Your task to perform on an android device: install app "Speedtest by Ookla" Image 0: 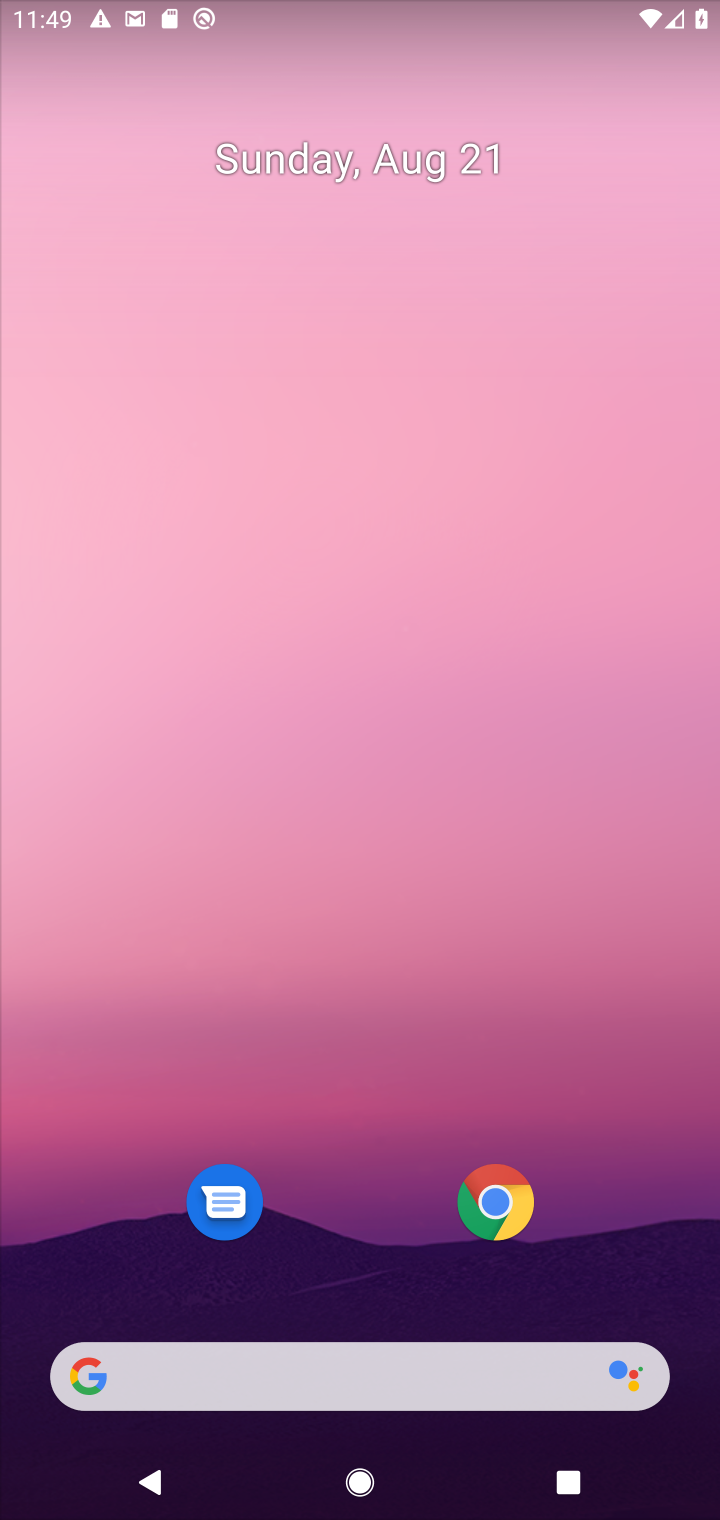
Step 0: drag from (356, 1300) to (339, 237)
Your task to perform on an android device: install app "Speedtest by Ookla" Image 1: 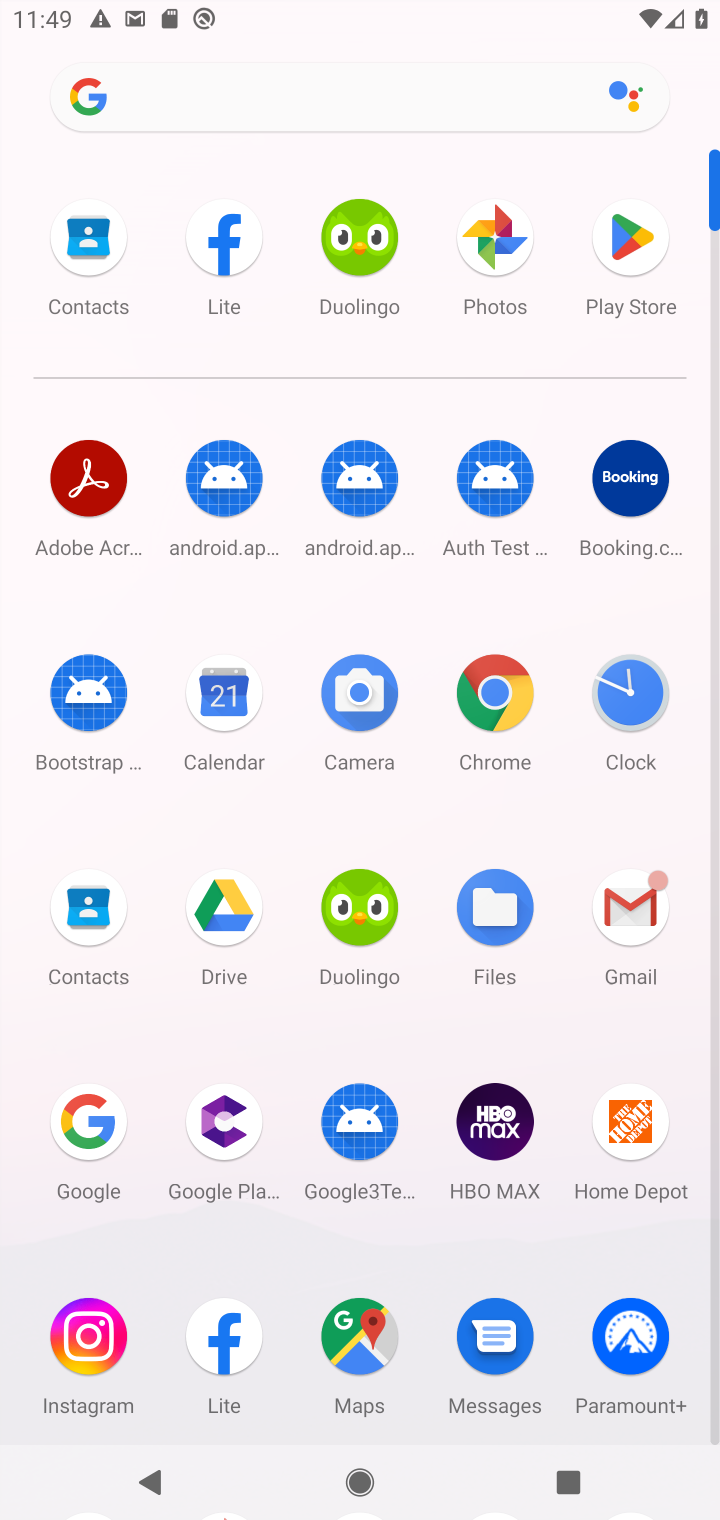
Step 1: click (626, 241)
Your task to perform on an android device: install app "Speedtest by Ookla" Image 2: 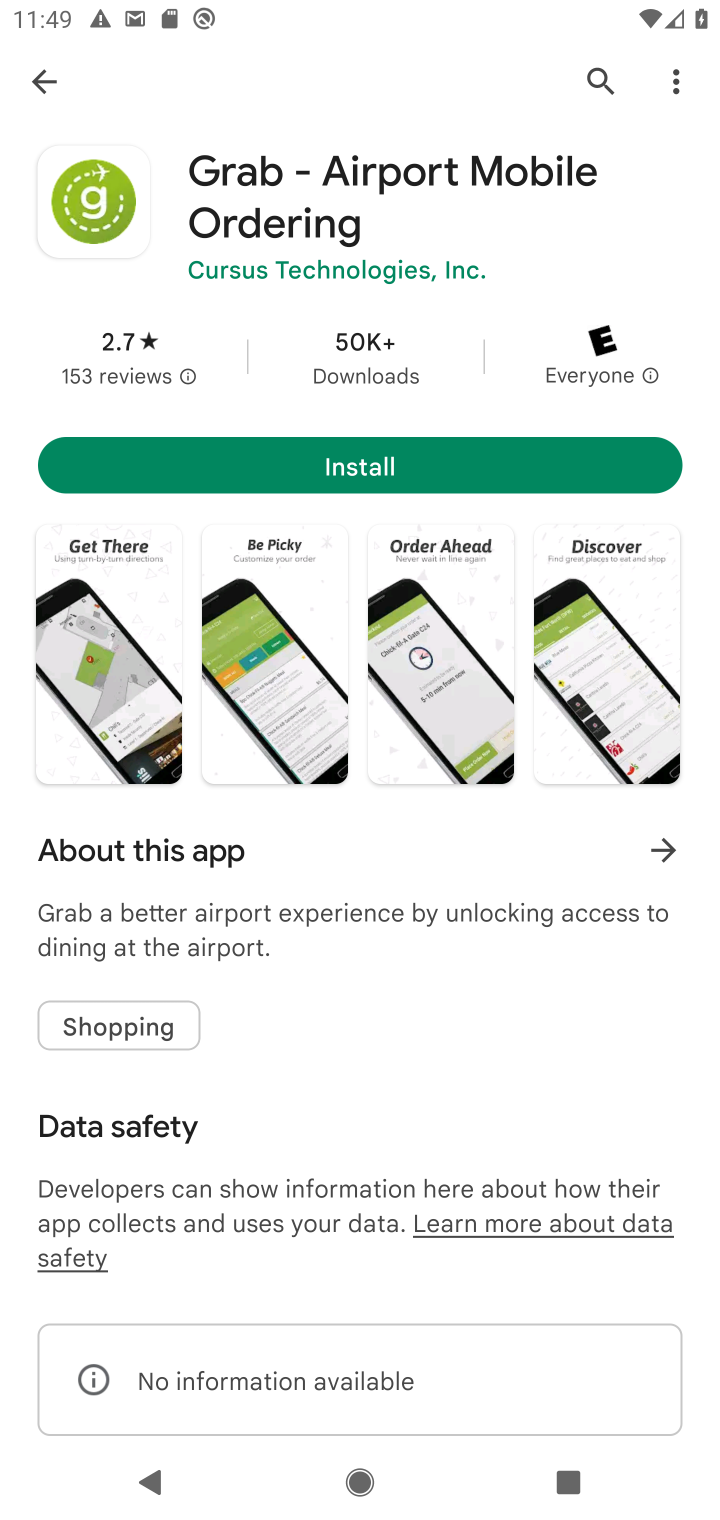
Step 2: click (595, 78)
Your task to perform on an android device: install app "Speedtest by Ookla" Image 3: 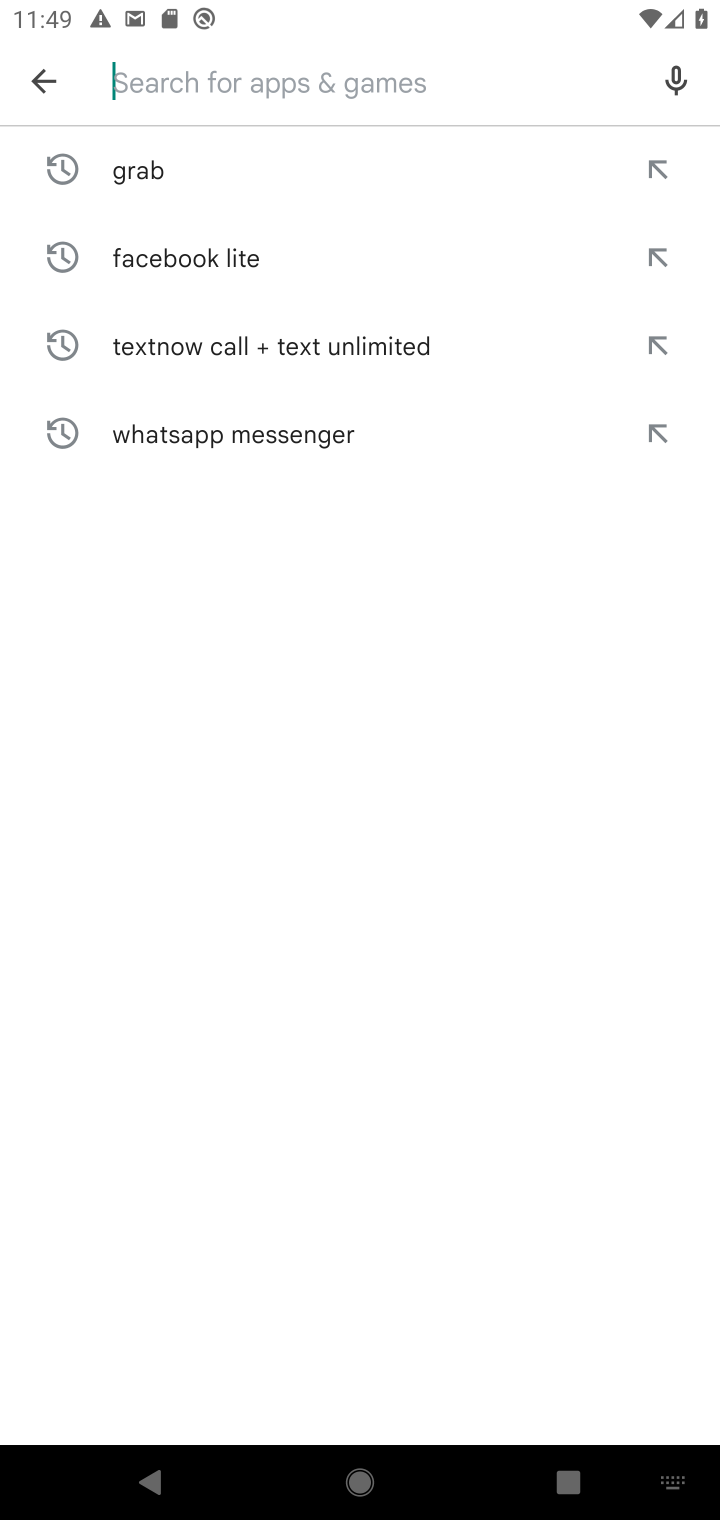
Step 3: type "Speedtest by Ookla"
Your task to perform on an android device: install app "Speedtest by Ookla" Image 4: 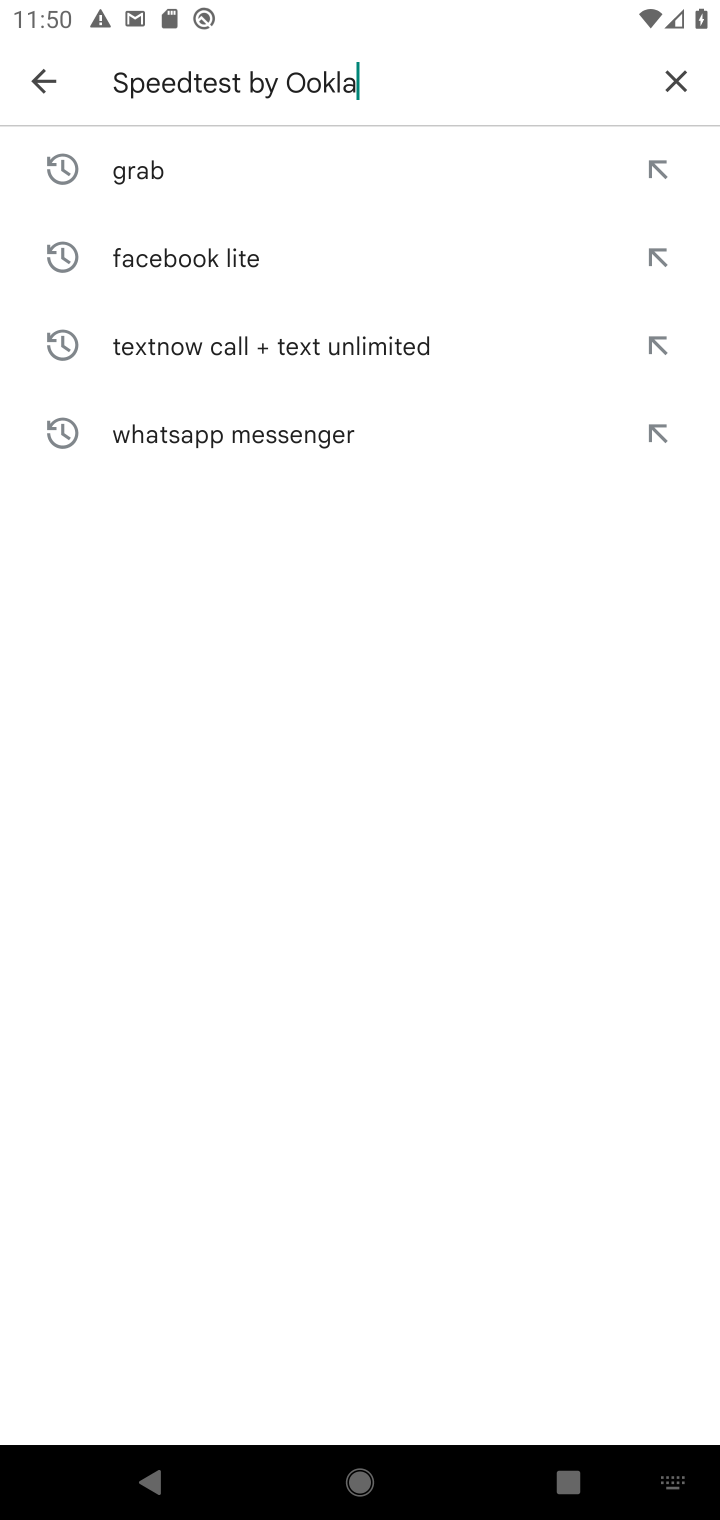
Step 4: type ""
Your task to perform on an android device: install app "Speedtest by Ookla" Image 5: 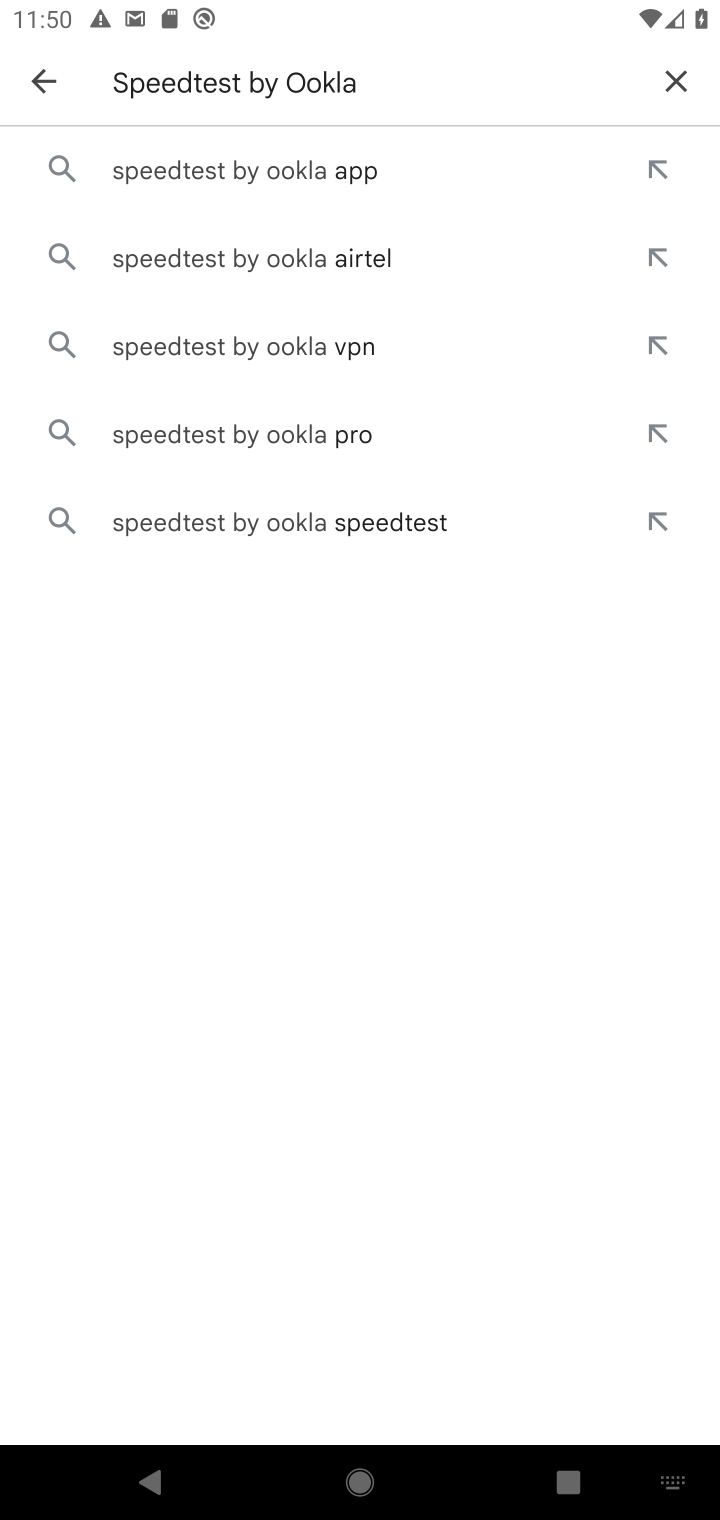
Step 5: click (295, 164)
Your task to perform on an android device: install app "Speedtest by Ookla" Image 6: 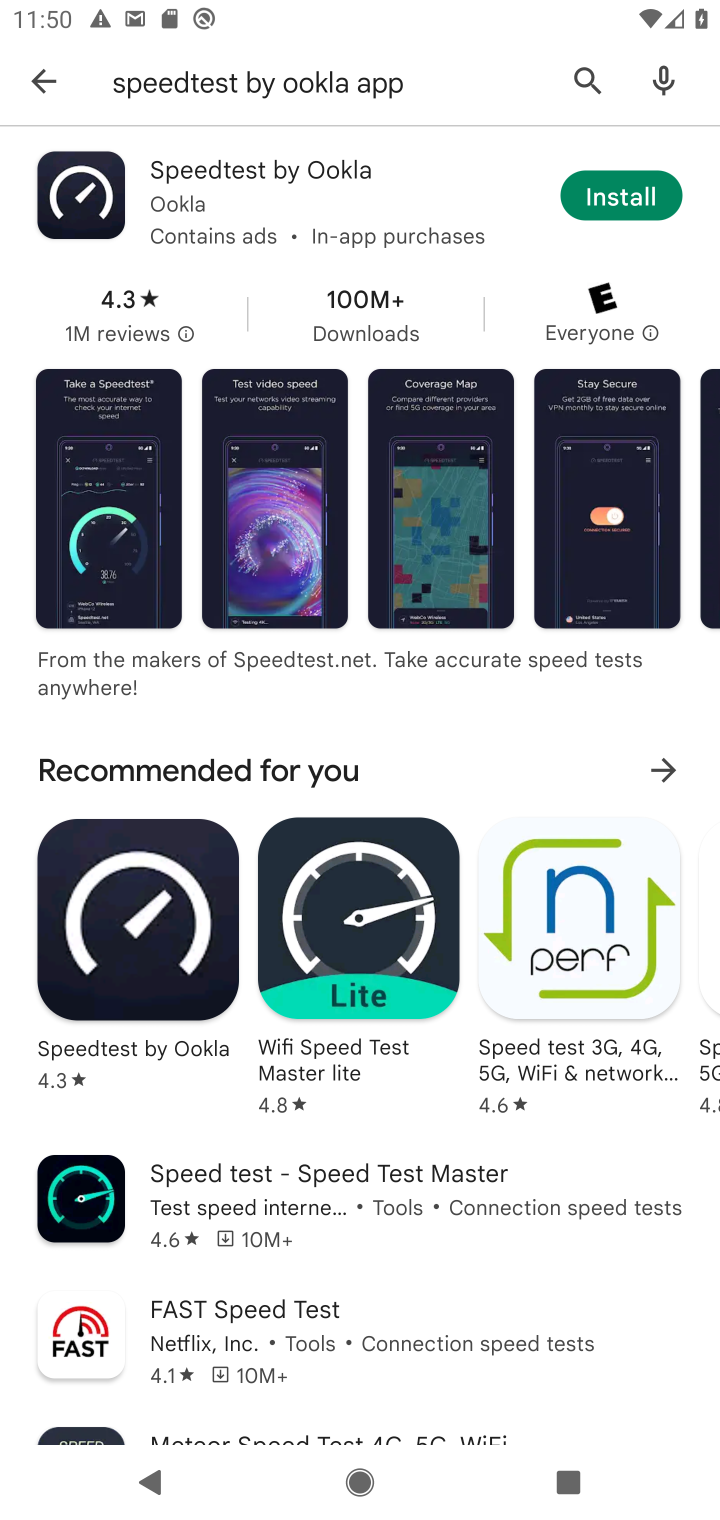
Step 6: click (621, 194)
Your task to perform on an android device: install app "Speedtest by Ookla" Image 7: 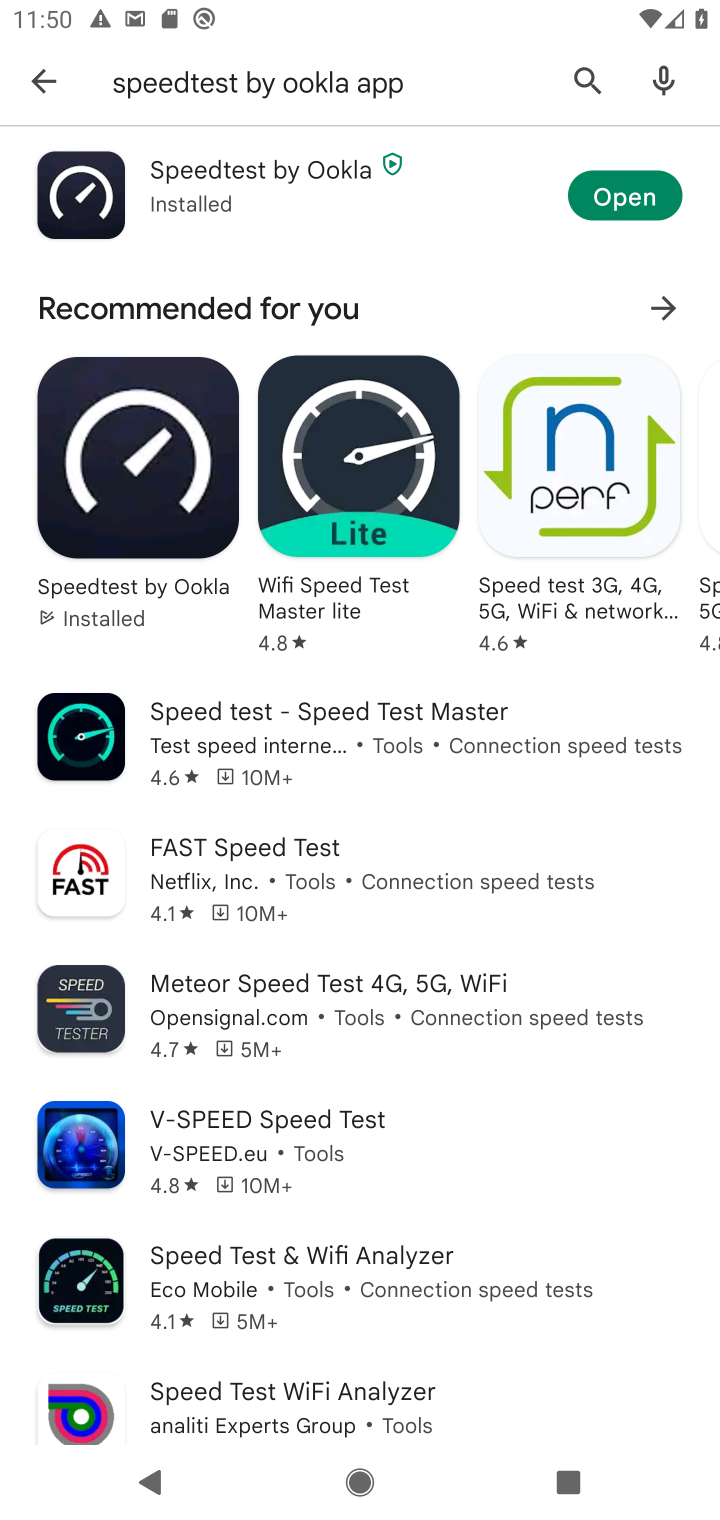
Step 7: task complete